Your task to perform on an android device: turn on the 24-hour format for clock Image 0: 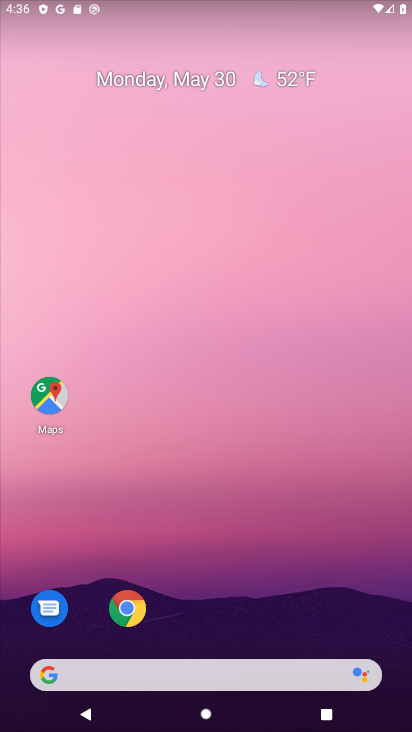
Step 0: drag from (177, 663) to (193, 247)
Your task to perform on an android device: turn on the 24-hour format for clock Image 1: 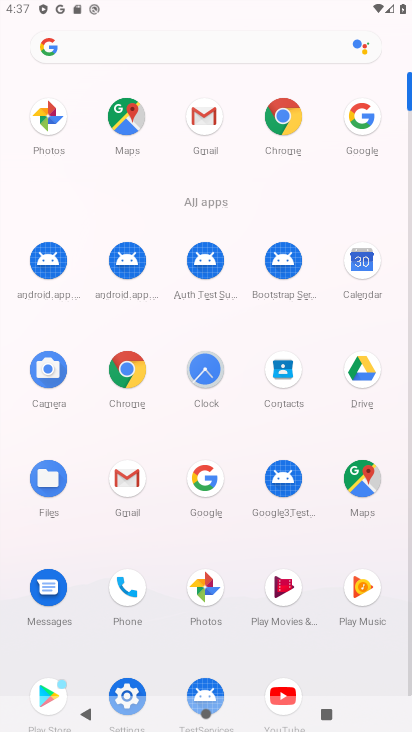
Step 1: click (232, 370)
Your task to perform on an android device: turn on the 24-hour format for clock Image 2: 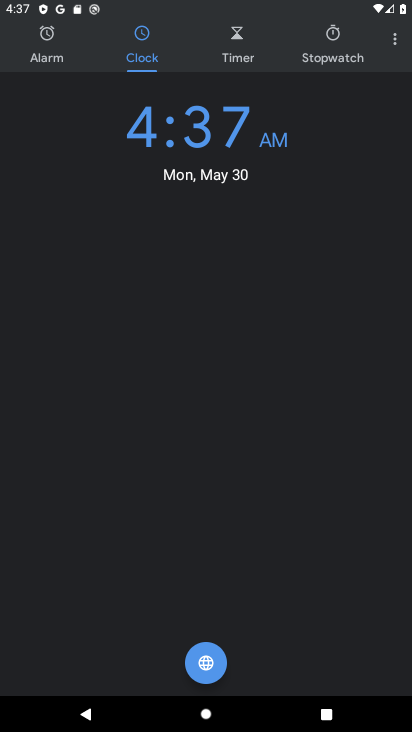
Step 2: click (394, 44)
Your task to perform on an android device: turn on the 24-hour format for clock Image 3: 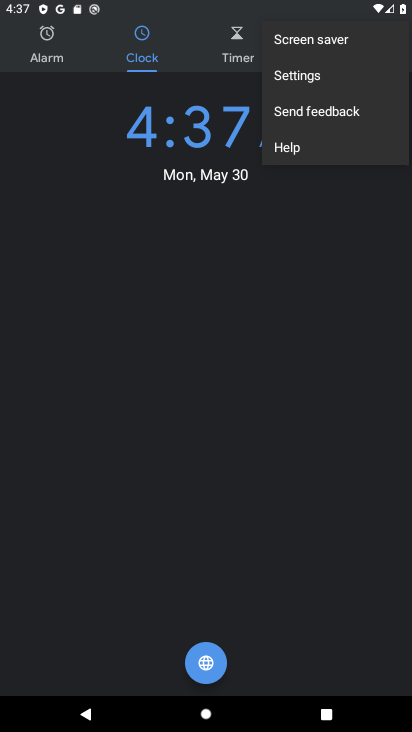
Step 3: click (311, 78)
Your task to perform on an android device: turn on the 24-hour format for clock Image 4: 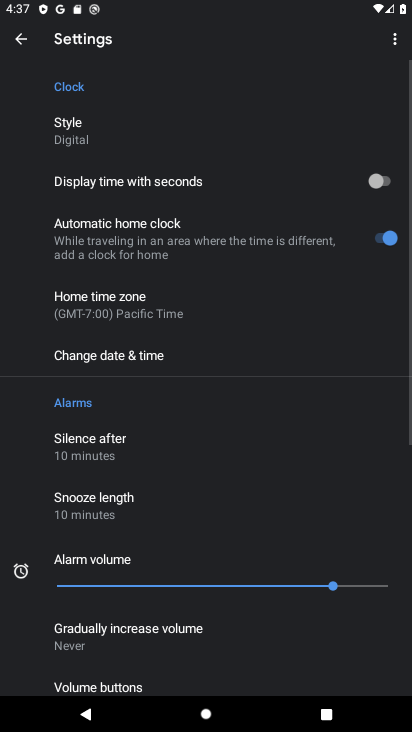
Step 4: drag from (149, 660) to (164, 175)
Your task to perform on an android device: turn on the 24-hour format for clock Image 5: 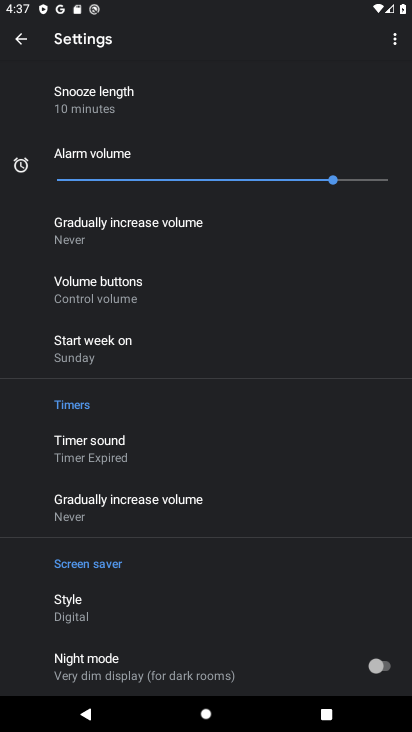
Step 5: drag from (189, 126) to (153, 613)
Your task to perform on an android device: turn on the 24-hour format for clock Image 6: 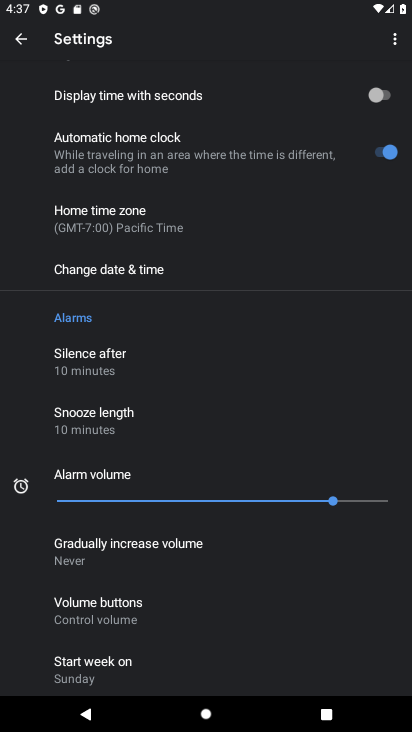
Step 6: click (92, 265)
Your task to perform on an android device: turn on the 24-hour format for clock Image 7: 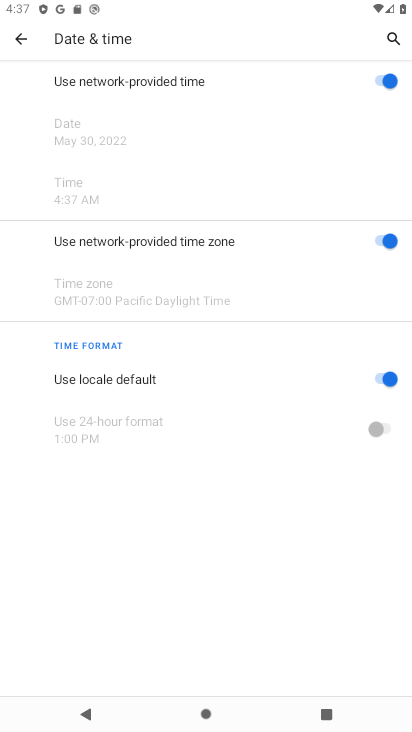
Step 7: click (370, 381)
Your task to perform on an android device: turn on the 24-hour format for clock Image 8: 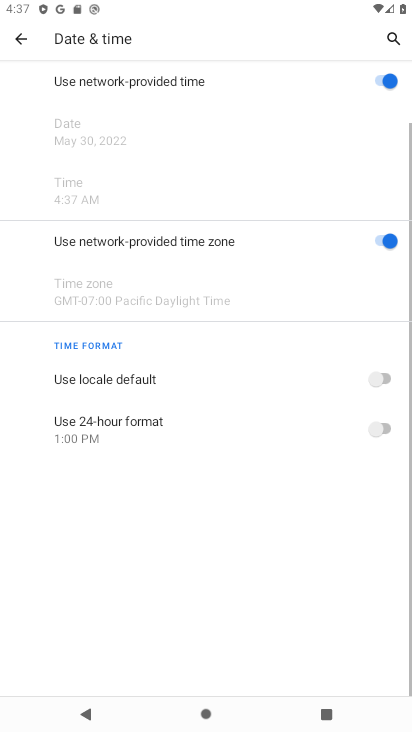
Step 8: click (383, 426)
Your task to perform on an android device: turn on the 24-hour format for clock Image 9: 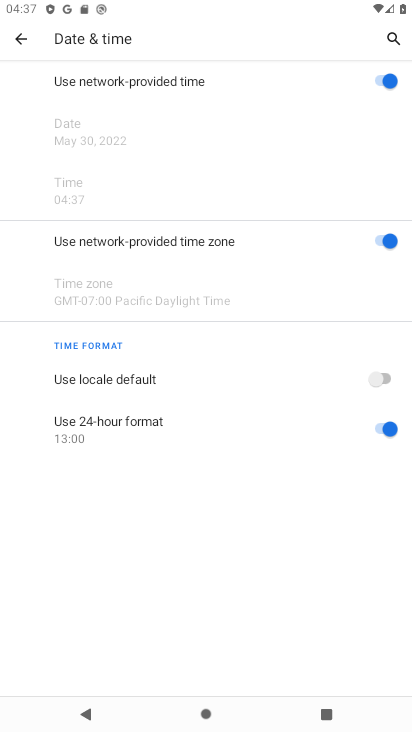
Step 9: task complete